Your task to perform on an android device: find photos in the google photos app Image 0: 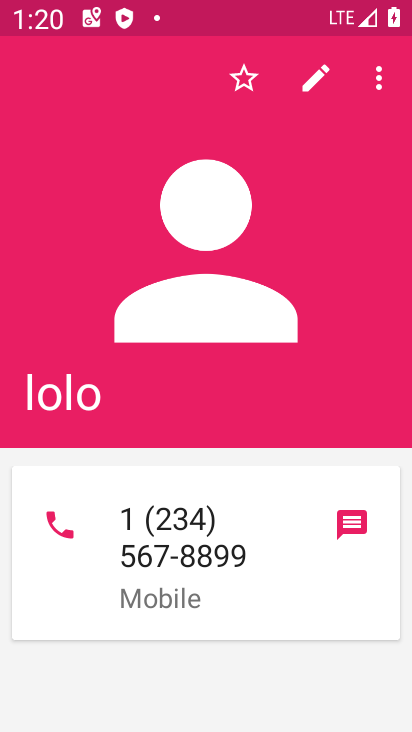
Step 0: press home button
Your task to perform on an android device: find photos in the google photos app Image 1: 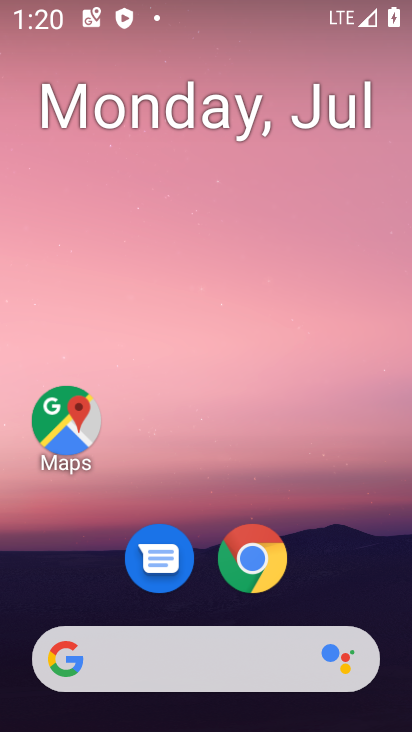
Step 1: drag from (377, 583) to (392, 167)
Your task to perform on an android device: find photos in the google photos app Image 2: 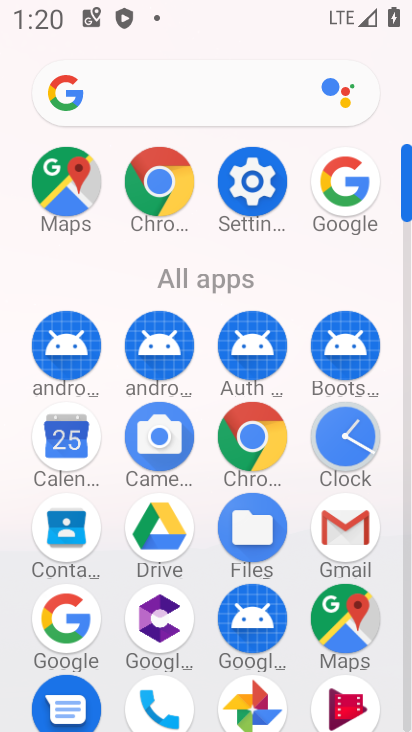
Step 2: click (259, 705)
Your task to perform on an android device: find photos in the google photos app Image 3: 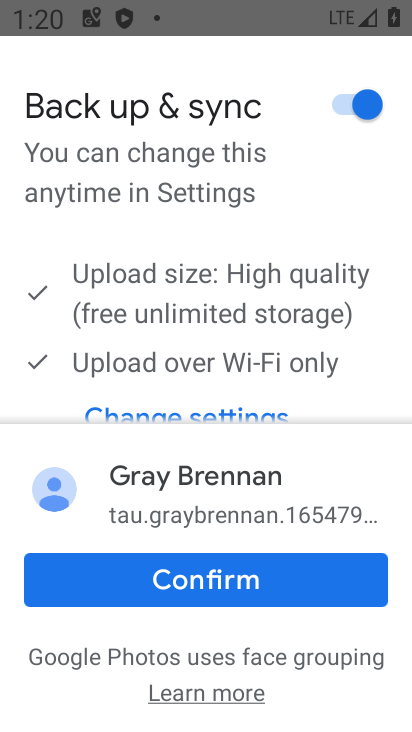
Step 3: click (318, 581)
Your task to perform on an android device: find photos in the google photos app Image 4: 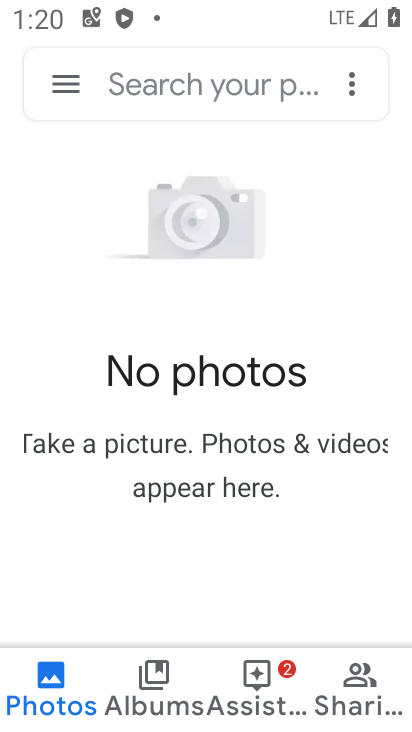
Step 4: task complete